Your task to perform on an android device: Open privacy settings Image 0: 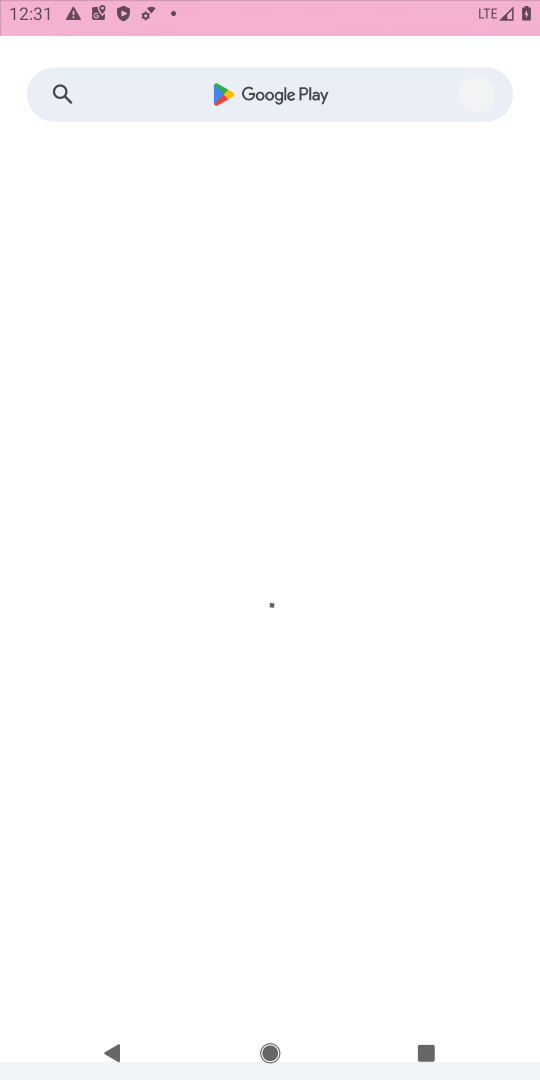
Step 0: press back button
Your task to perform on an android device: Open privacy settings Image 1: 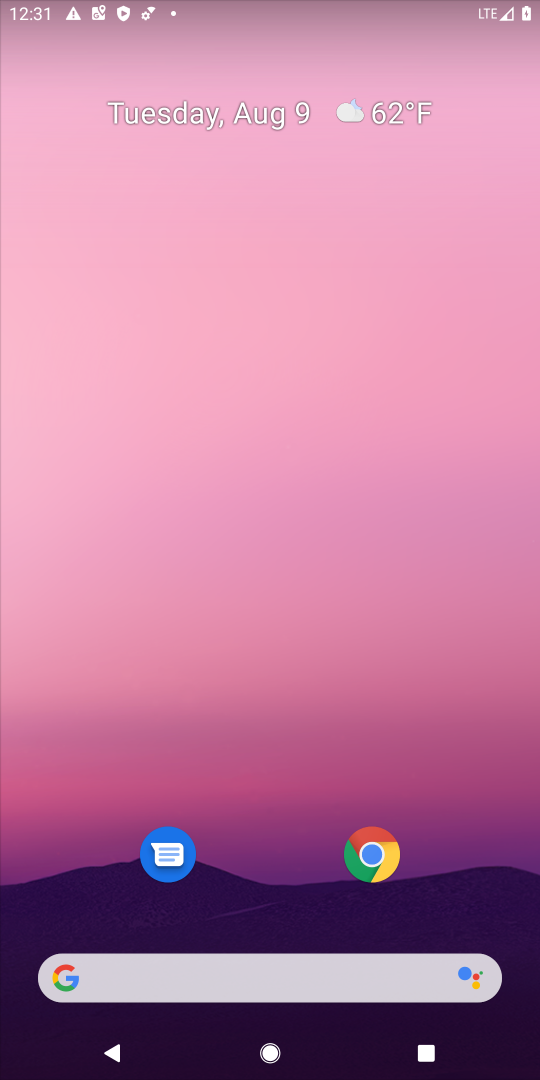
Step 1: drag from (253, 889) to (341, 30)
Your task to perform on an android device: Open privacy settings Image 2: 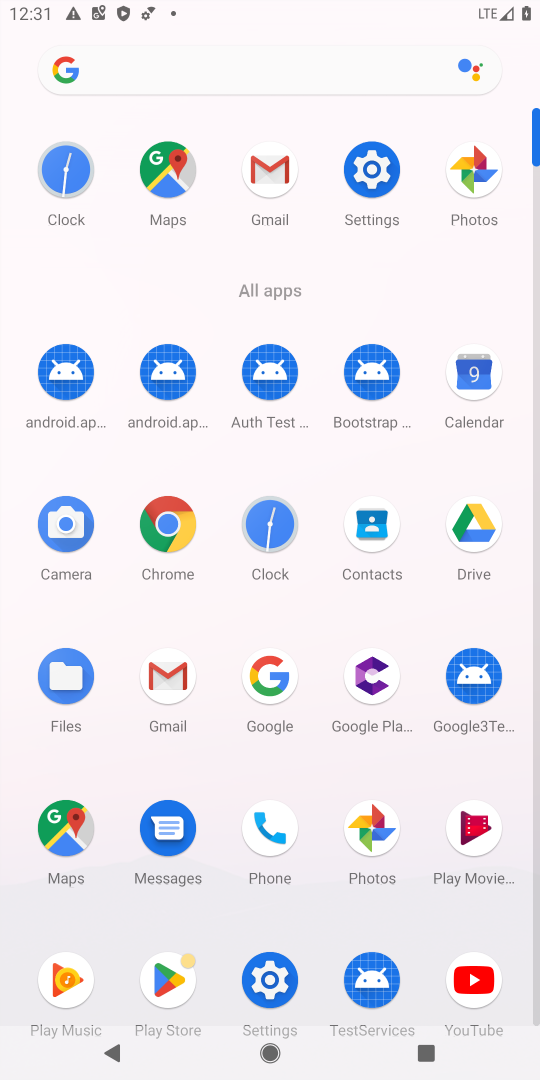
Step 2: click (373, 177)
Your task to perform on an android device: Open privacy settings Image 3: 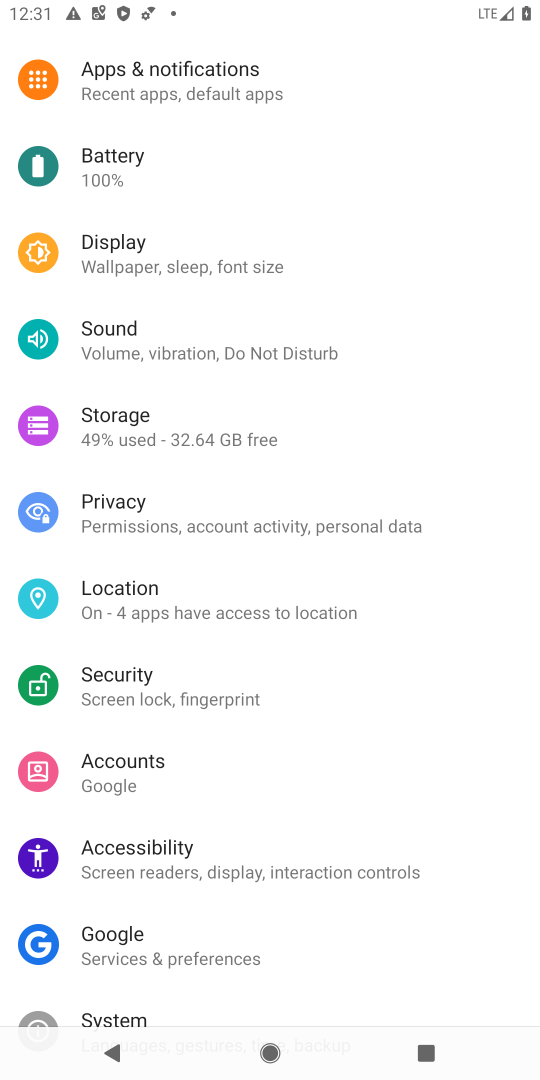
Step 3: click (197, 499)
Your task to perform on an android device: Open privacy settings Image 4: 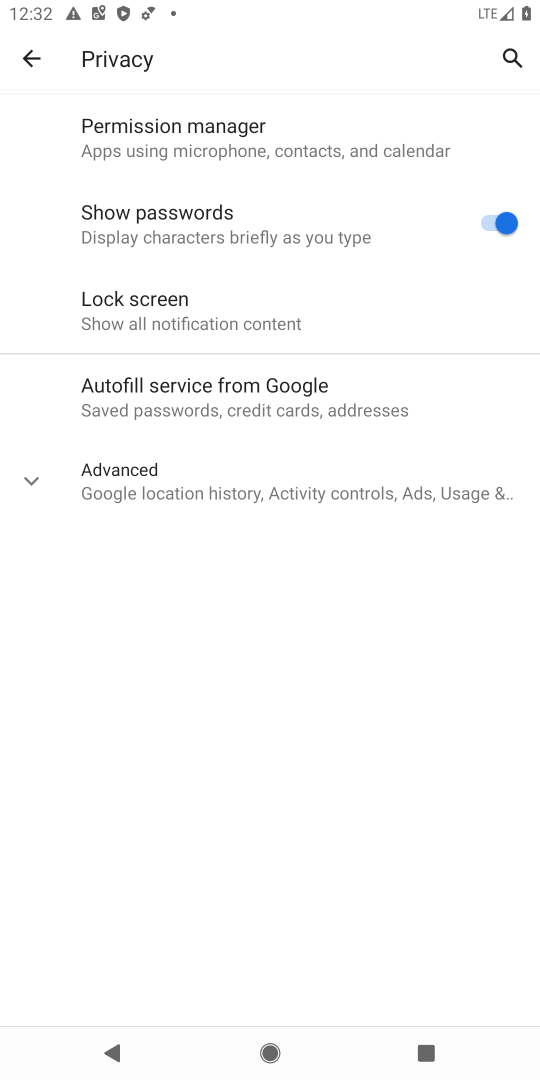
Step 4: task complete